Your task to perform on an android device: Open Google Maps and go to "Timeline" Image 0: 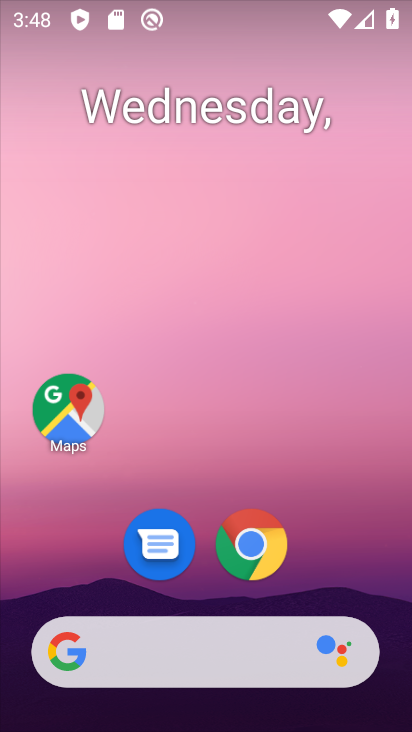
Step 0: click (92, 424)
Your task to perform on an android device: Open Google Maps and go to "Timeline" Image 1: 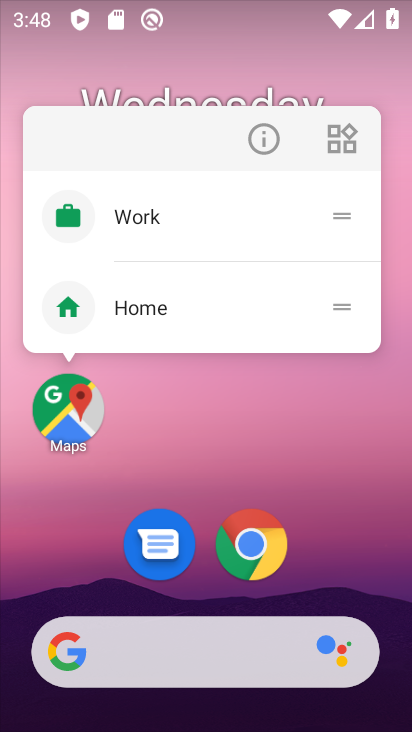
Step 1: click (75, 417)
Your task to perform on an android device: Open Google Maps and go to "Timeline" Image 2: 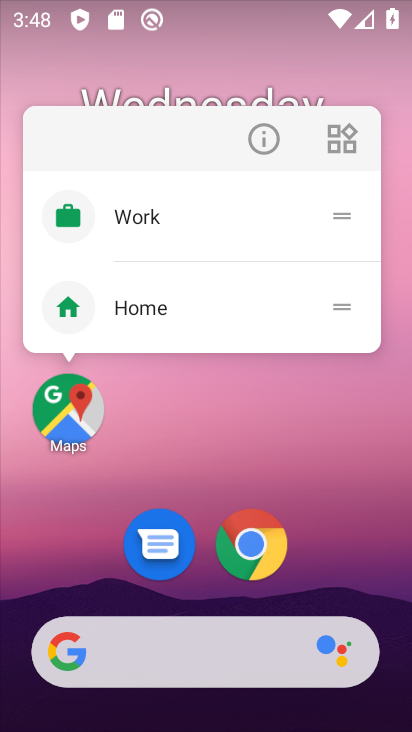
Step 2: click (78, 426)
Your task to perform on an android device: Open Google Maps and go to "Timeline" Image 3: 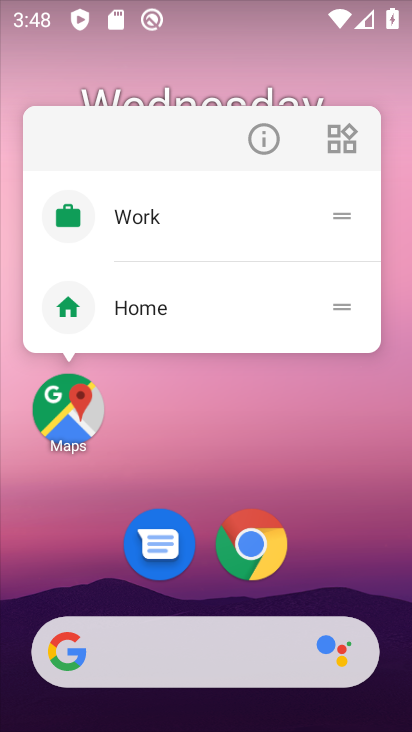
Step 3: click (77, 424)
Your task to perform on an android device: Open Google Maps and go to "Timeline" Image 4: 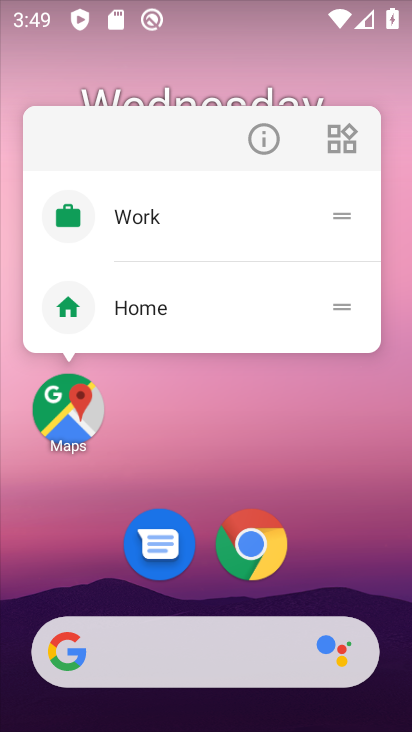
Step 4: click (61, 406)
Your task to perform on an android device: Open Google Maps and go to "Timeline" Image 5: 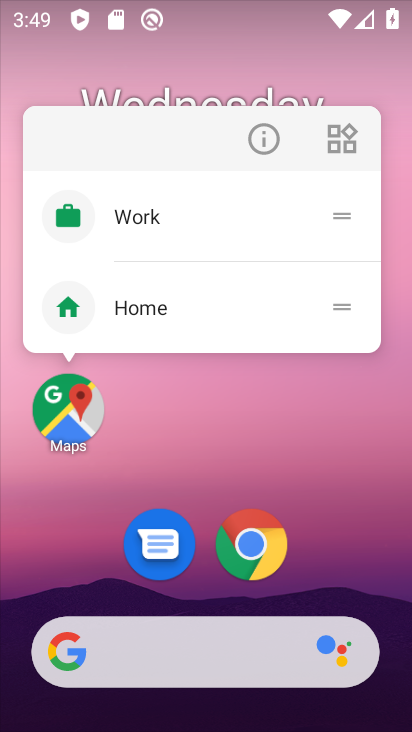
Step 5: click (72, 430)
Your task to perform on an android device: Open Google Maps and go to "Timeline" Image 6: 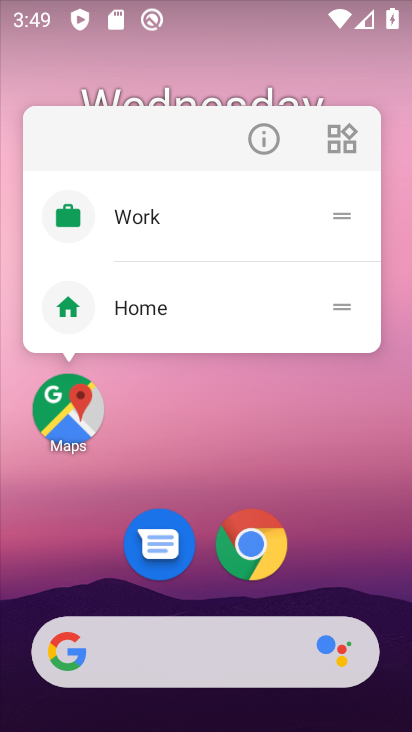
Step 6: click (91, 409)
Your task to perform on an android device: Open Google Maps and go to "Timeline" Image 7: 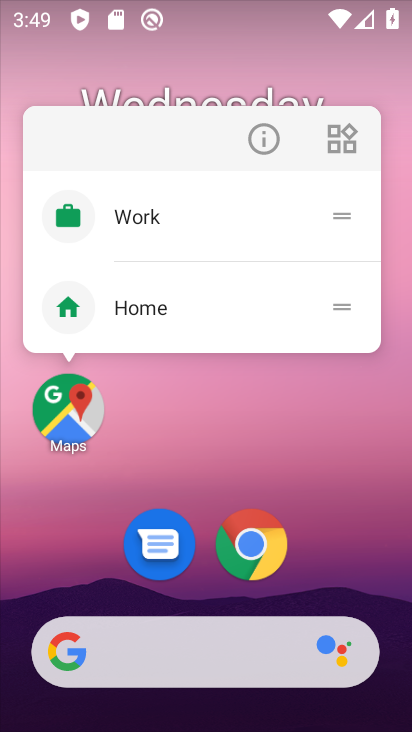
Step 7: click (80, 400)
Your task to perform on an android device: Open Google Maps and go to "Timeline" Image 8: 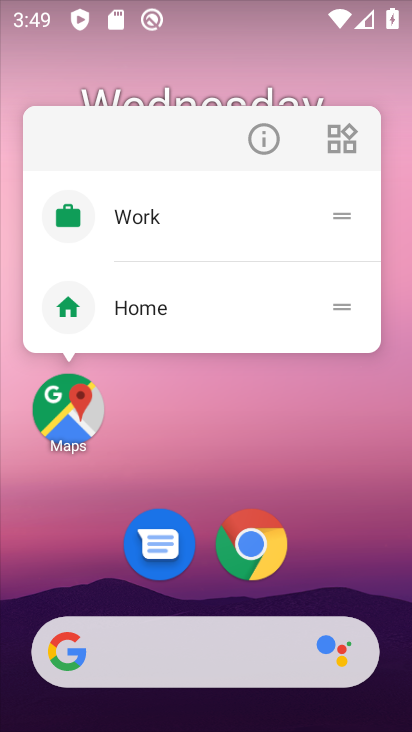
Step 8: click (61, 408)
Your task to perform on an android device: Open Google Maps and go to "Timeline" Image 9: 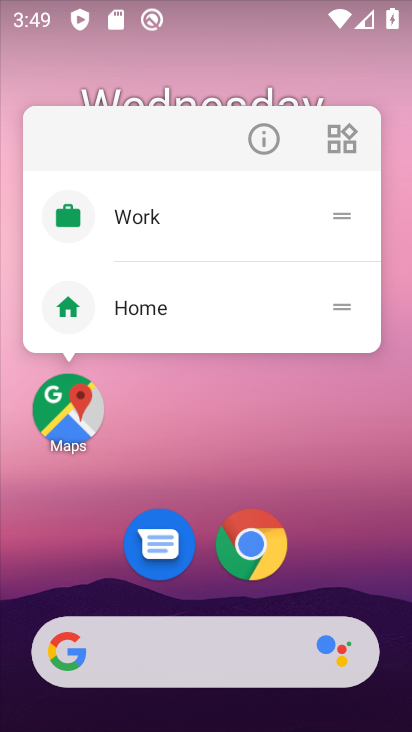
Step 9: click (65, 436)
Your task to perform on an android device: Open Google Maps and go to "Timeline" Image 10: 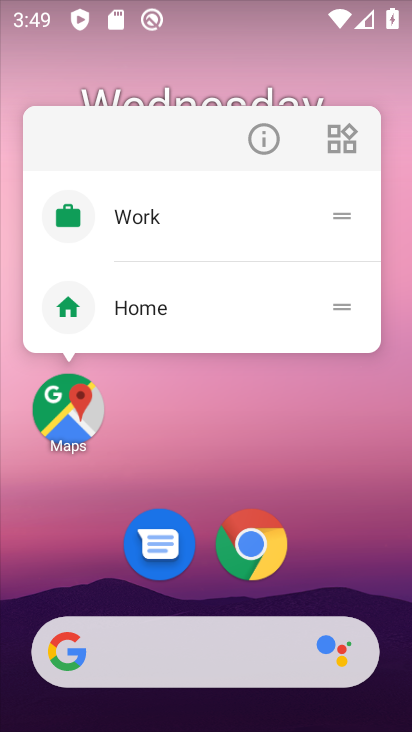
Step 10: click (80, 419)
Your task to perform on an android device: Open Google Maps and go to "Timeline" Image 11: 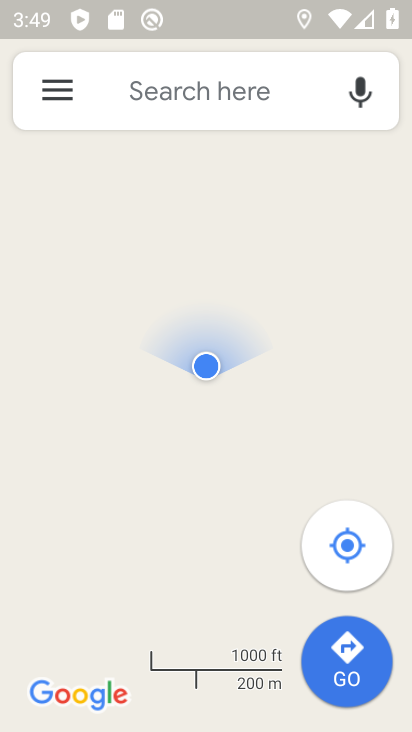
Step 11: click (67, 93)
Your task to perform on an android device: Open Google Maps and go to "Timeline" Image 12: 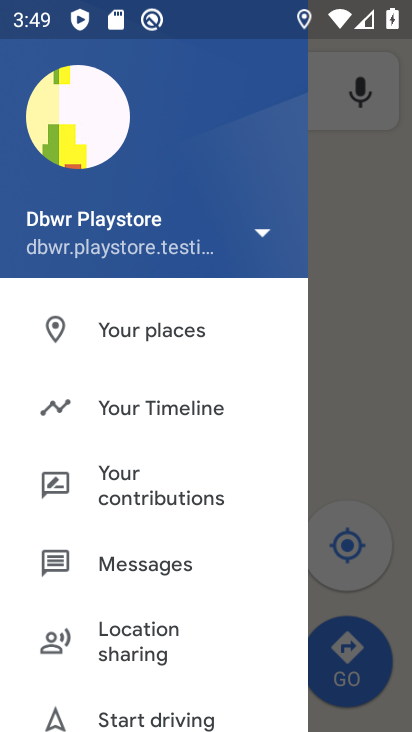
Step 12: click (199, 413)
Your task to perform on an android device: Open Google Maps and go to "Timeline" Image 13: 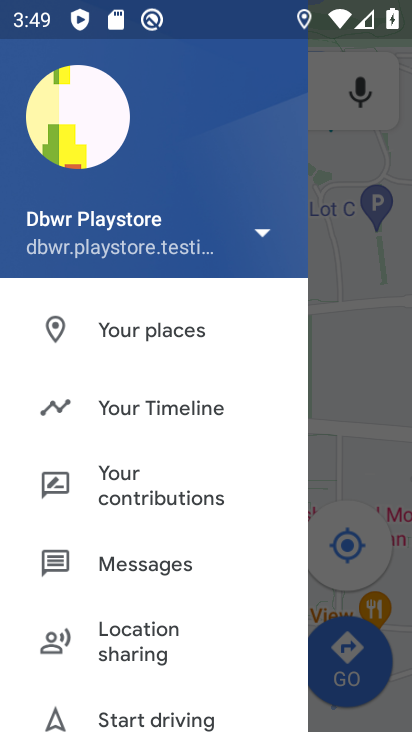
Step 13: click (204, 407)
Your task to perform on an android device: Open Google Maps and go to "Timeline" Image 14: 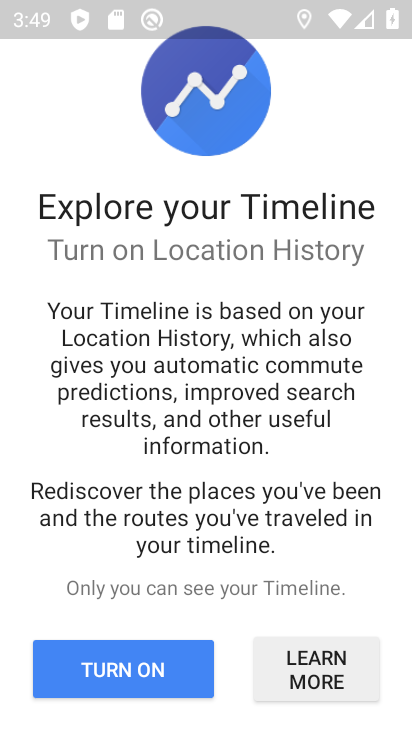
Step 14: click (171, 675)
Your task to perform on an android device: Open Google Maps and go to "Timeline" Image 15: 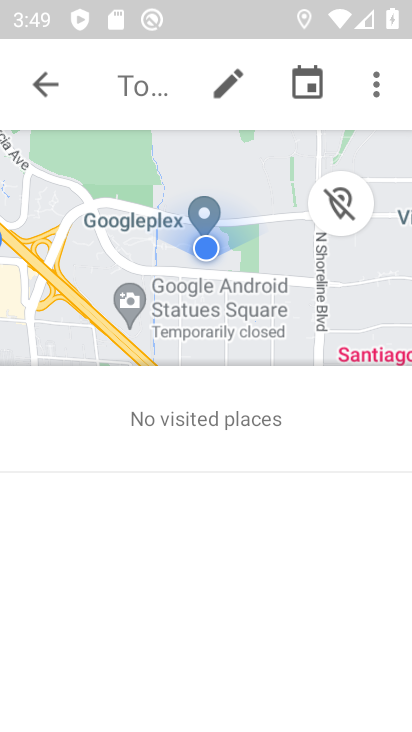
Step 15: task complete